Your task to perform on an android device: Open Wikipedia Image 0: 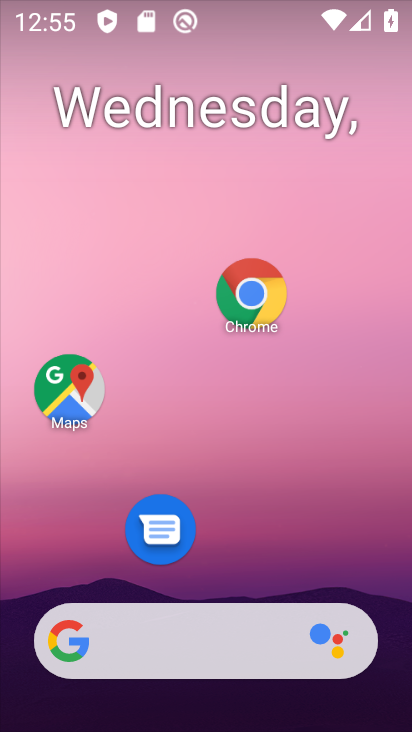
Step 0: click (274, 508)
Your task to perform on an android device: Open Wikipedia Image 1: 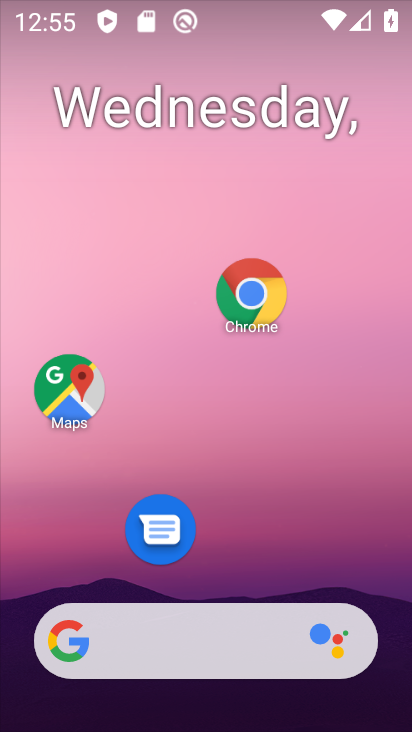
Step 1: drag from (240, 540) to (215, 131)
Your task to perform on an android device: Open Wikipedia Image 2: 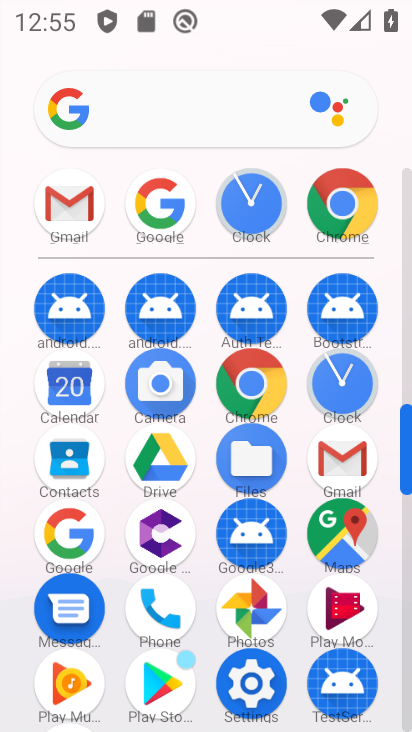
Step 2: click (246, 380)
Your task to perform on an android device: Open Wikipedia Image 3: 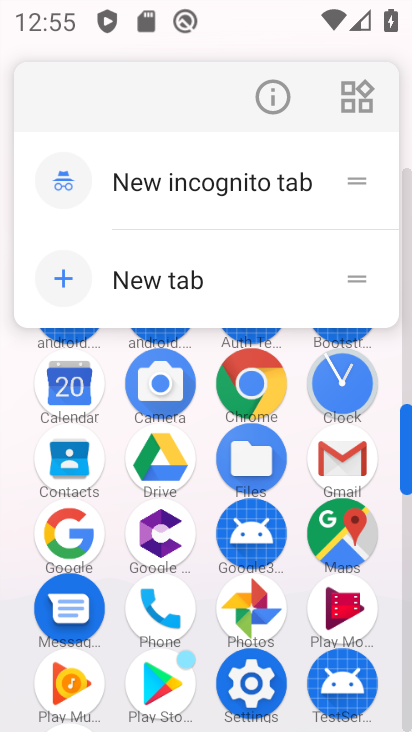
Step 3: click (246, 380)
Your task to perform on an android device: Open Wikipedia Image 4: 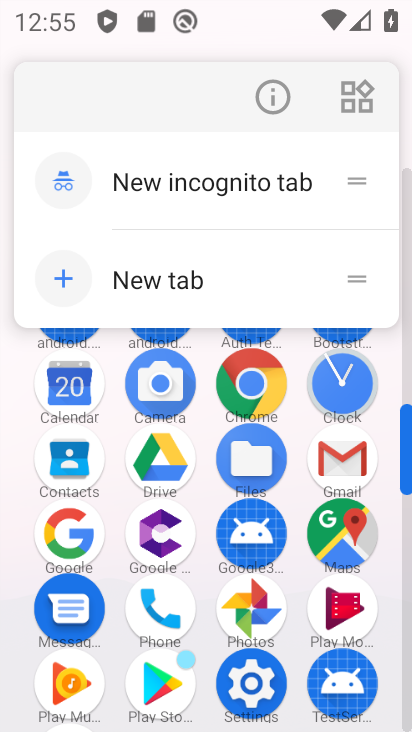
Step 4: click (230, 387)
Your task to perform on an android device: Open Wikipedia Image 5: 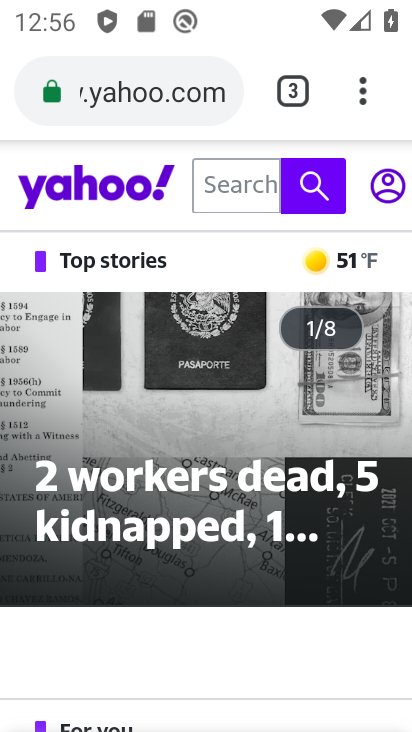
Step 5: drag from (292, 89) to (337, 178)
Your task to perform on an android device: Open Wikipedia Image 6: 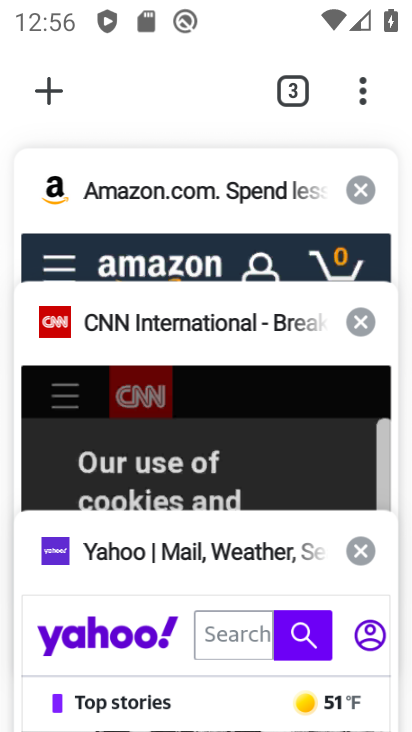
Step 6: click (67, 96)
Your task to perform on an android device: Open Wikipedia Image 7: 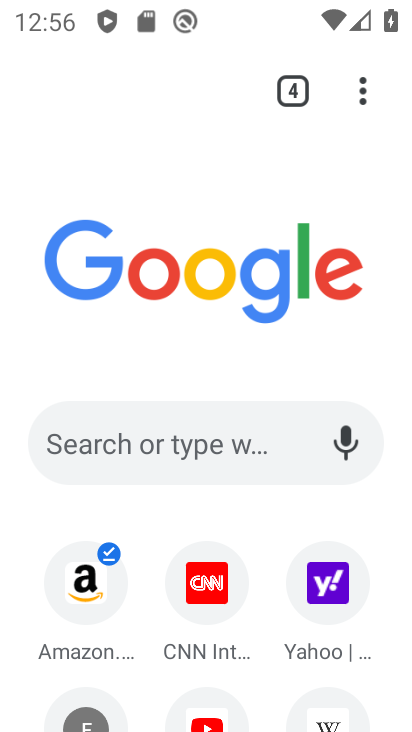
Step 7: drag from (265, 578) to (227, 378)
Your task to perform on an android device: Open Wikipedia Image 8: 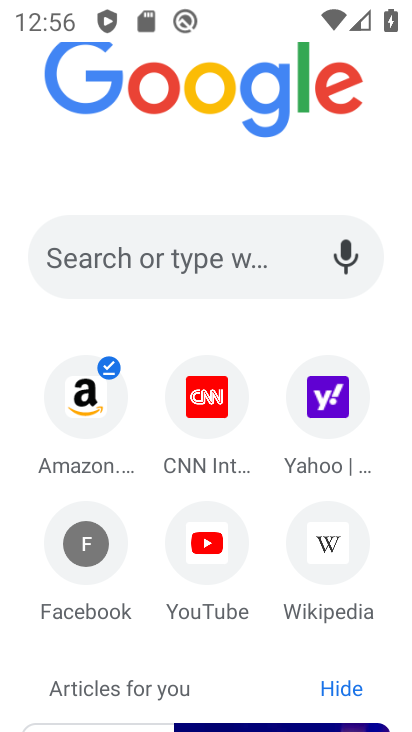
Step 8: click (323, 552)
Your task to perform on an android device: Open Wikipedia Image 9: 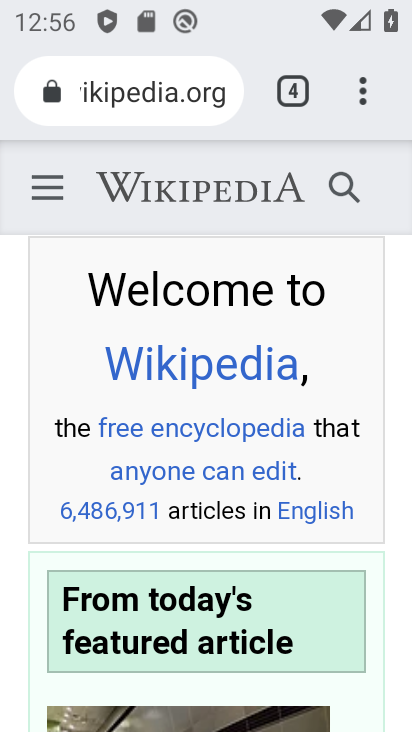
Step 9: task complete